Your task to perform on an android device: turn off notifications settings in the gmail app Image 0: 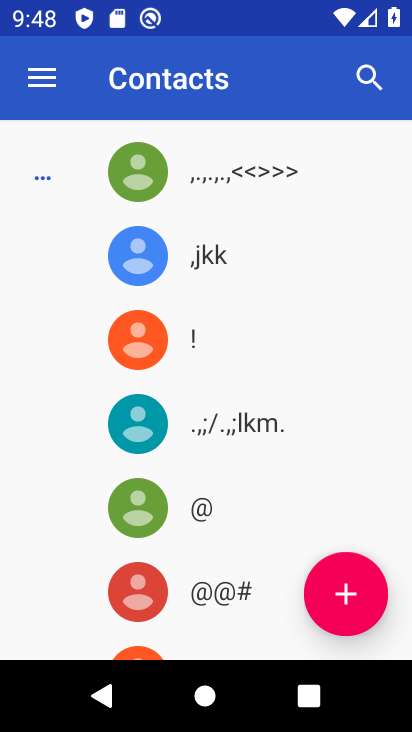
Step 0: press home button
Your task to perform on an android device: turn off notifications settings in the gmail app Image 1: 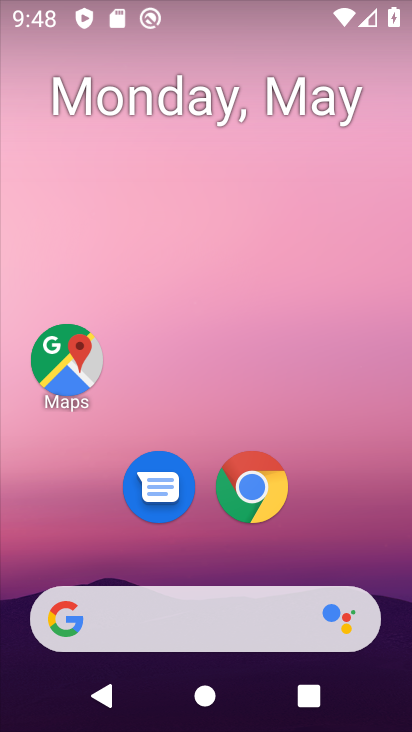
Step 1: drag from (202, 538) to (210, 0)
Your task to perform on an android device: turn off notifications settings in the gmail app Image 2: 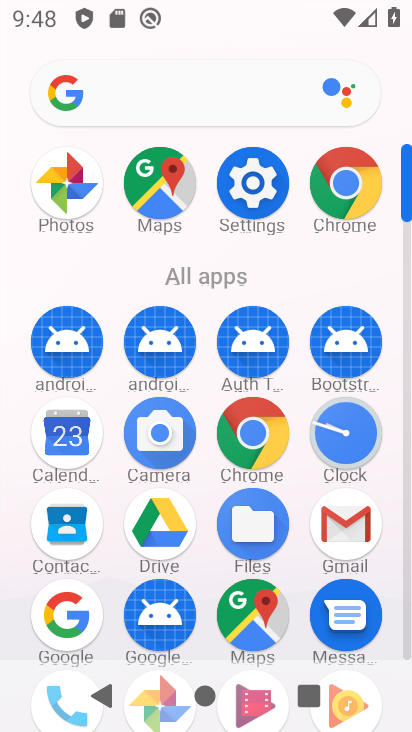
Step 2: click (368, 528)
Your task to perform on an android device: turn off notifications settings in the gmail app Image 3: 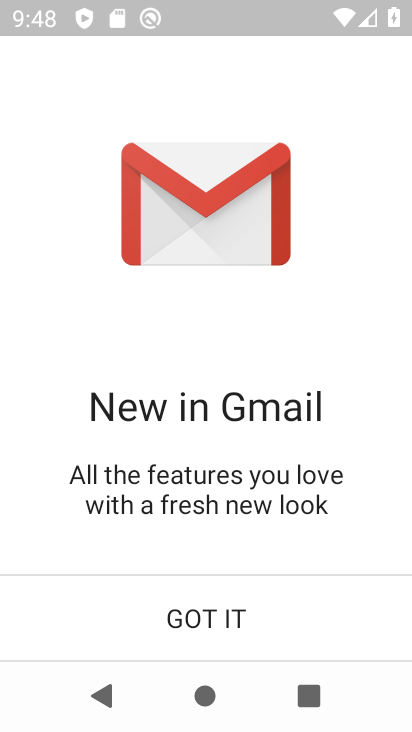
Step 3: click (206, 608)
Your task to perform on an android device: turn off notifications settings in the gmail app Image 4: 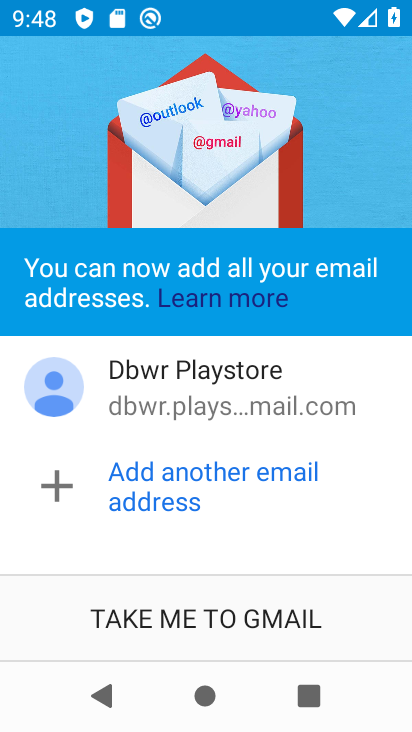
Step 4: click (206, 615)
Your task to perform on an android device: turn off notifications settings in the gmail app Image 5: 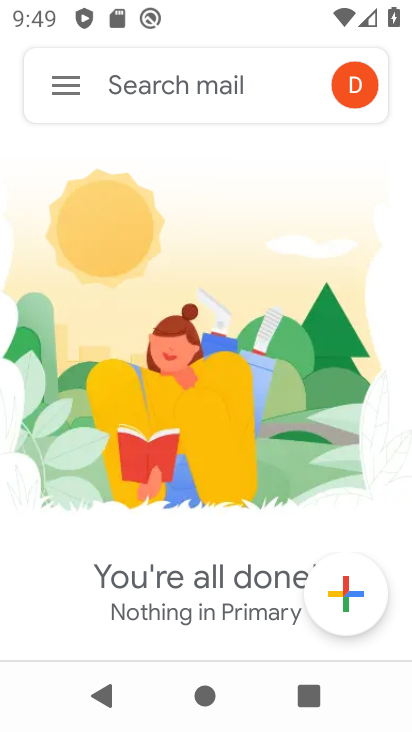
Step 5: click (64, 98)
Your task to perform on an android device: turn off notifications settings in the gmail app Image 6: 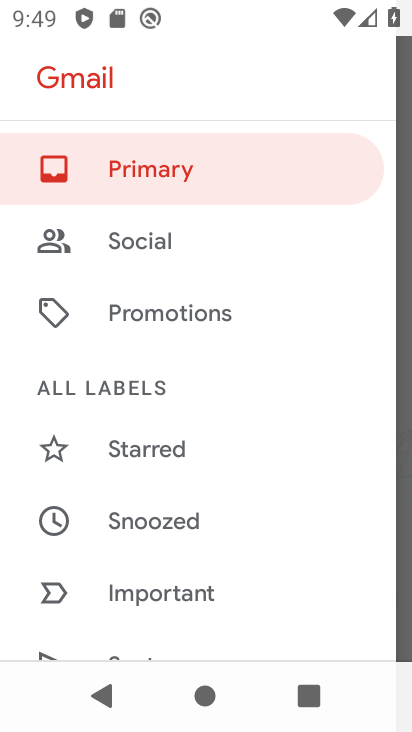
Step 6: drag from (159, 552) to (190, 142)
Your task to perform on an android device: turn off notifications settings in the gmail app Image 7: 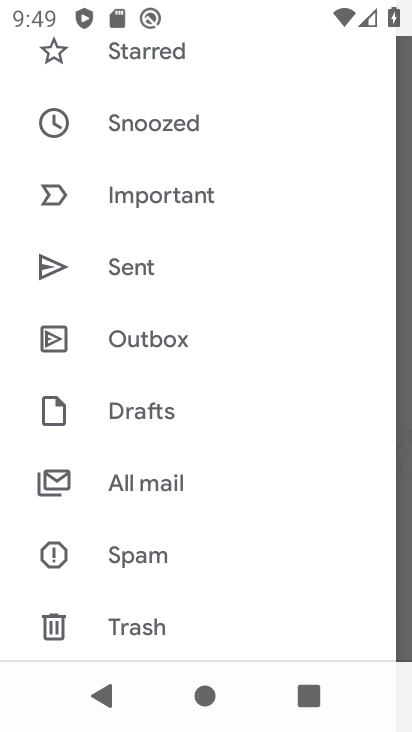
Step 7: drag from (149, 518) to (180, 168)
Your task to perform on an android device: turn off notifications settings in the gmail app Image 8: 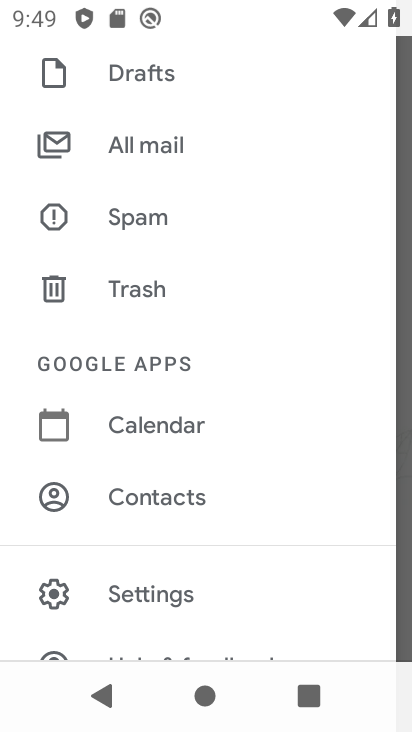
Step 8: click (135, 607)
Your task to perform on an android device: turn off notifications settings in the gmail app Image 9: 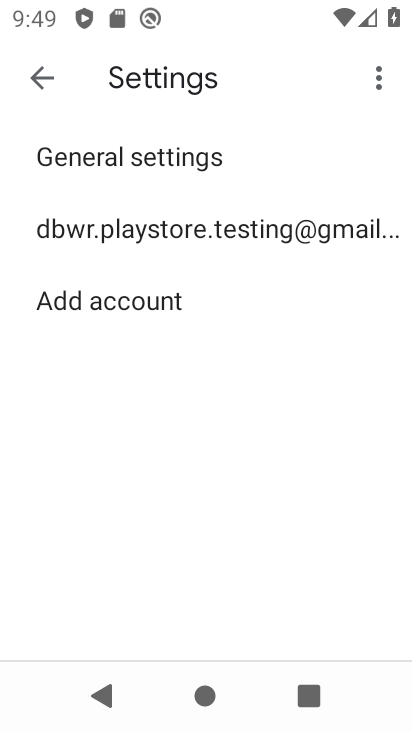
Step 9: click (171, 164)
Your task to perform on an android device: turn off notifications settings in the gmail app Image 10: 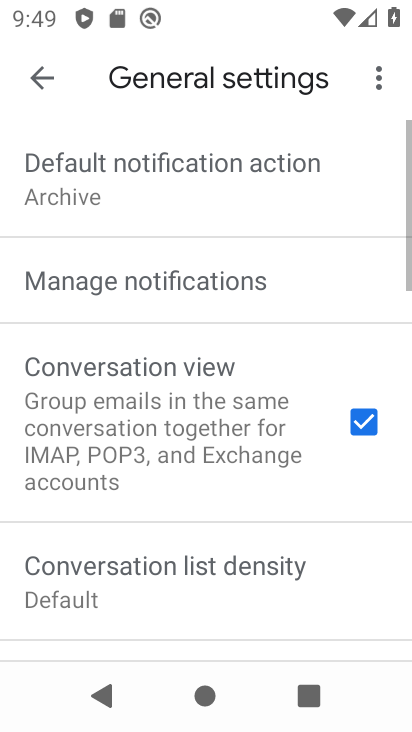
Step 10: click (170, 281)
Your task to perform on an android device: turn off notifications settings in the gmail app Image 11: 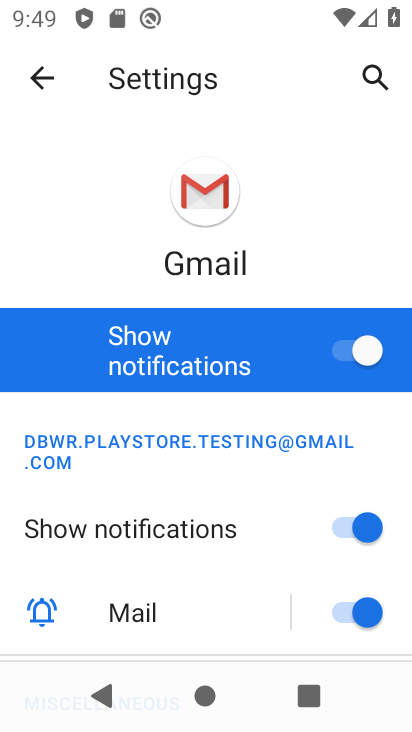
Step 11: click (327, 358)
Your task to perform on an android device: turn off notifications settings in the gmail app Image 12: 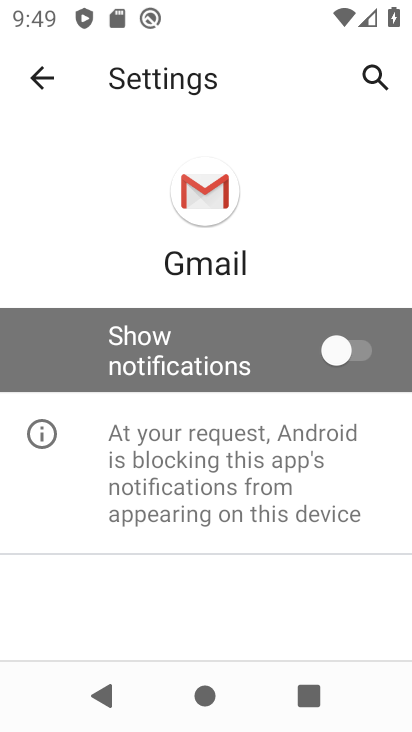
Step 12: task complete